Your task to perform on an android device: Open Chrome and go to the settings page Image 0: 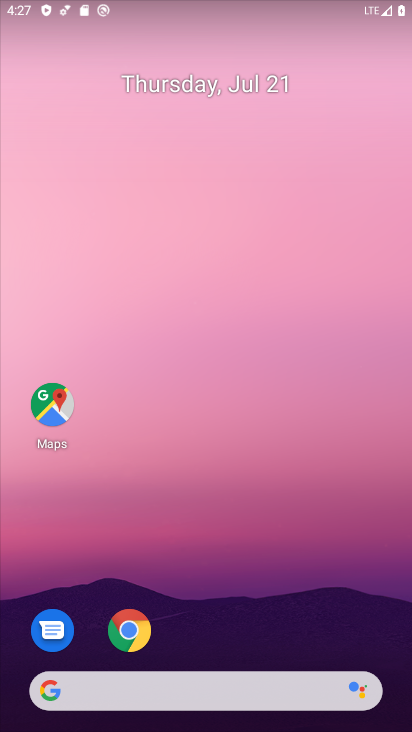
Step 0: drag from (380, 639) to (292, 106)
Your task to perform on an android device: Open Chrome and go to the settings page Image 1: 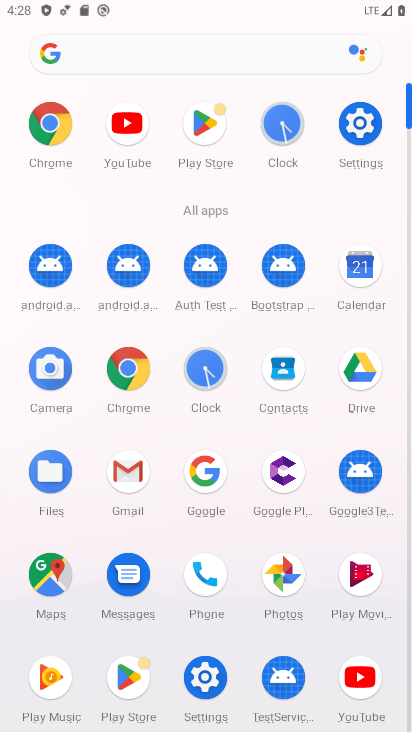
Step 1: click (51, 121)
Your task to perform on an android device: Open Chrome and go to the settings page Image 2: 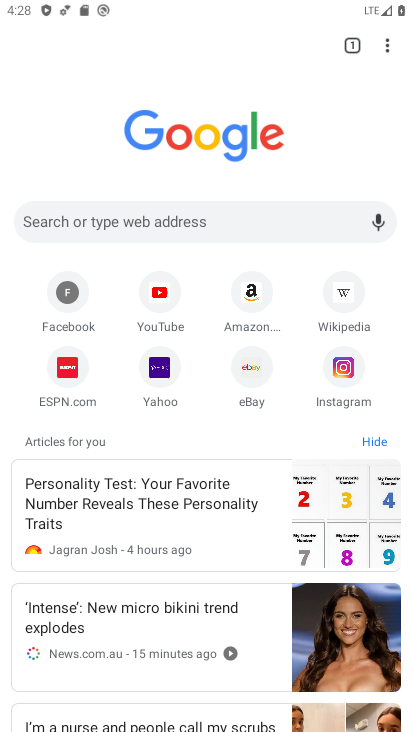
Step 2: click (387, 50)
Your task to perform on an android device: Open Chrome and go to the settings page Image 3: 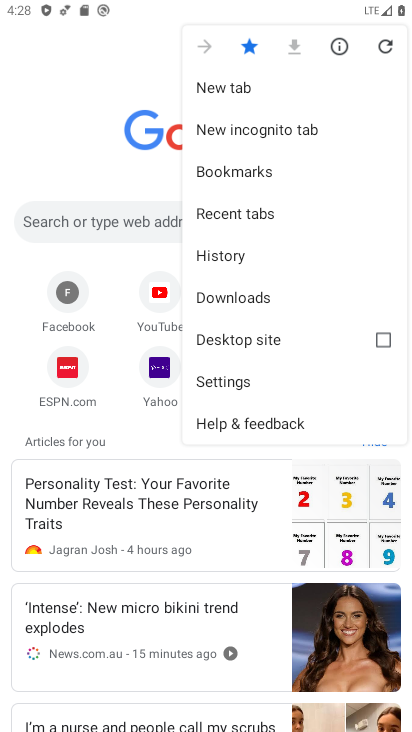
Step 3: click (266, 387)
Your task to perform on an android device: Open Chrome and go to the settings page Image 4: 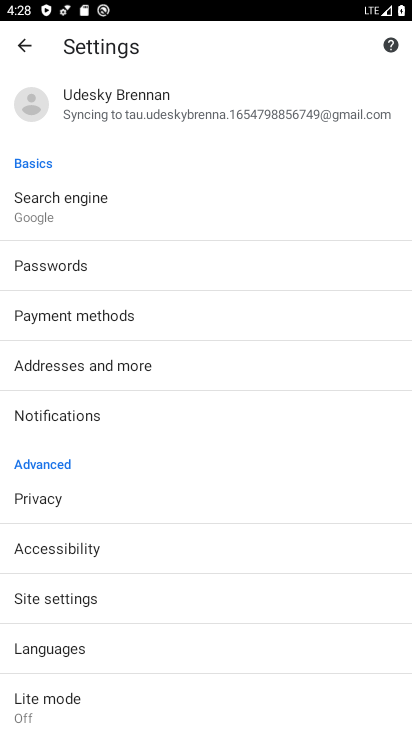
Step 4: task complete